Your task to perform on an android device: Go to battery settings Image 0: 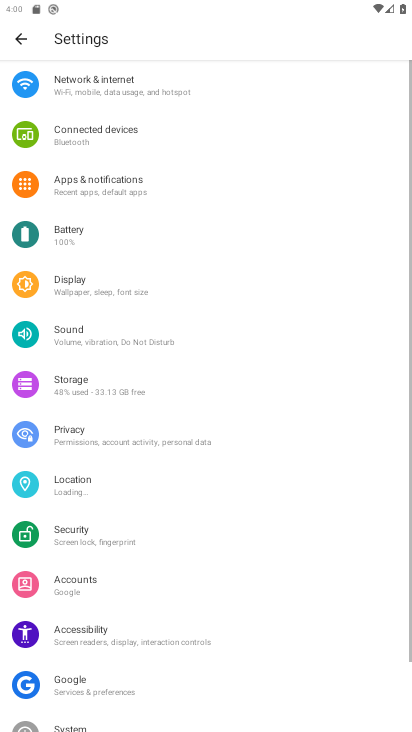
Step 0: drag from (155, 230) to (184, 577)
Your task to perform on an android device: Go to battery settings Image 1: 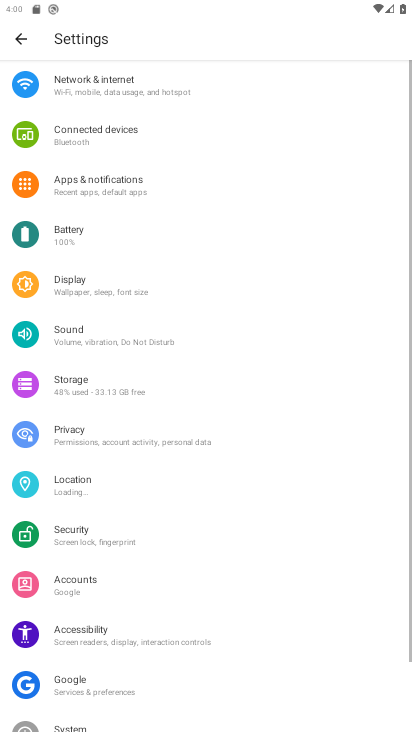
Step 1: click (126, 236)
Your task to perform on an android device: Go to battery settings Image 2: 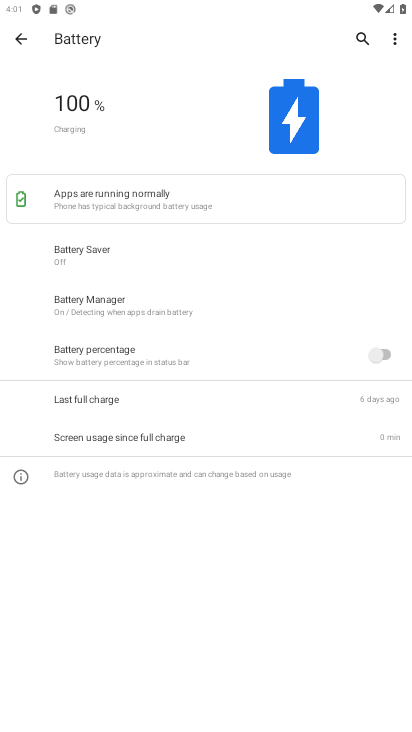
Step 2: task complete